Your task to perform on an android device: turn on improve location accuracy Image 0: 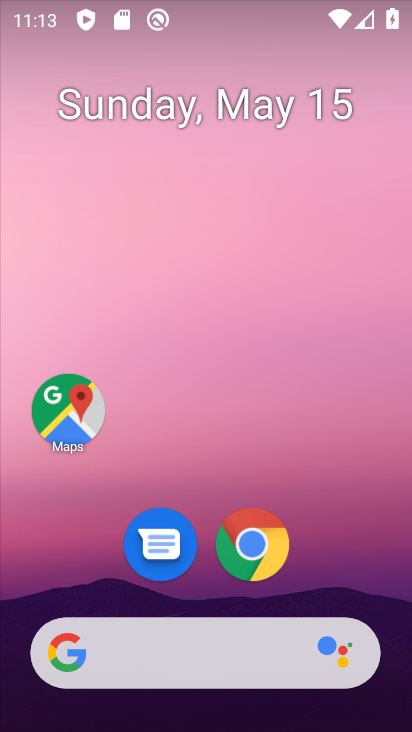
Step 0: drag from (335, 586) to (217, 110)
Your task to perform on an android device: turn on improve location accuracy Image 1: 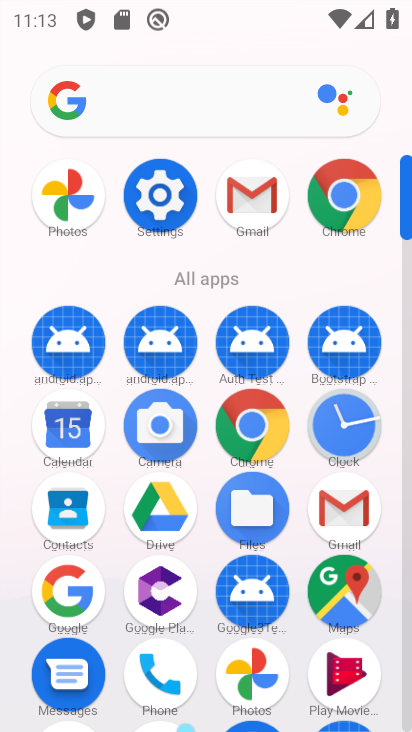
Step 1: click (163, 221)
Your task to perform on an android device: turn on improve location accuracy Image 2: 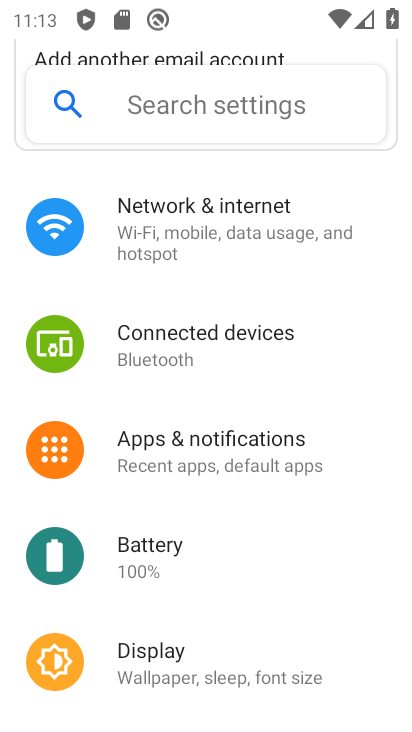
Step 2: drag from (304, 631) to (194, 142)
Your task to perform on an android device: turn on improve location accuracy Image 3: 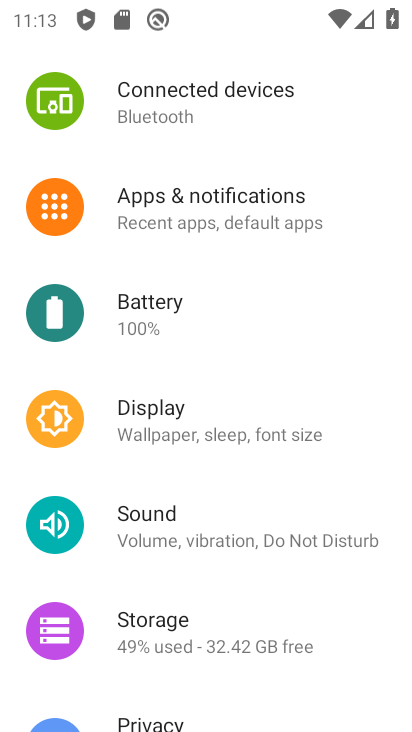
Step 3: click (285, 719)
Your task to perform on an android device: turn on improve location accuracy Image 4: 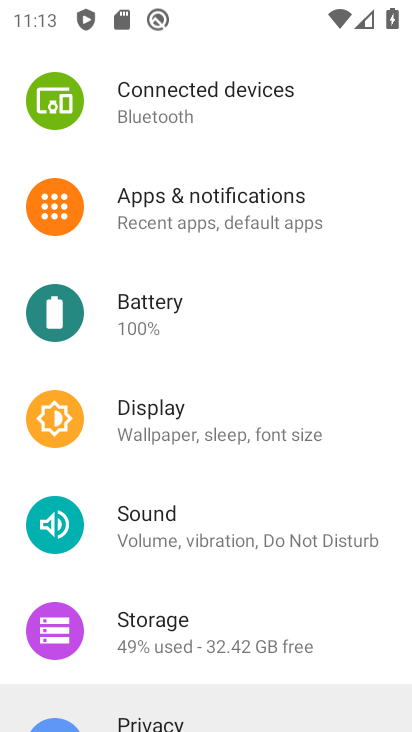
Step 4: click (285, 719)
Your task to perform on an android device: turn on improve location accuracy Image 5: 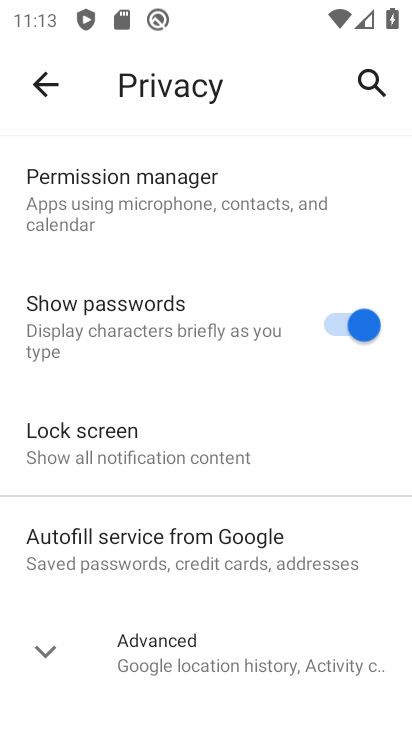
Step 5: drag from (289, 698) to (202, 341)
Your task to perform on an android device: turn on improve location accuracy Image 6: 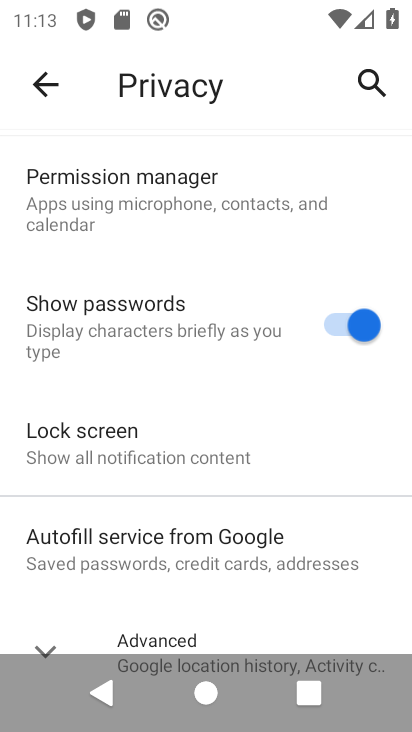
Step 6: click (55, 90)
Your task to perform on an android device: turn on improve location accuracy Image 7: 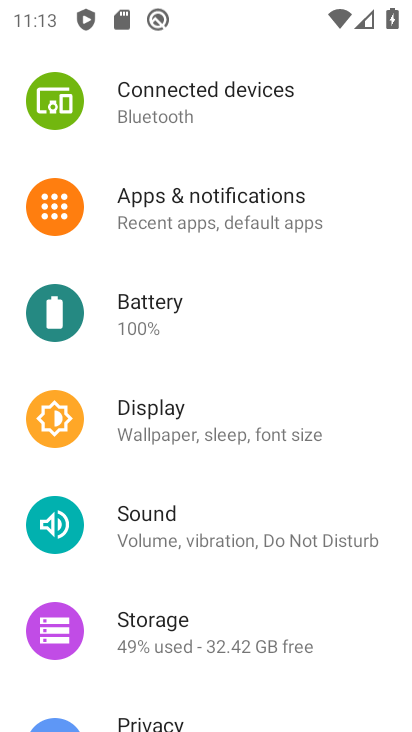
Step 7: drag from (370, 691) to (321, 225)
Your task to perform on an android device: turn on improve location accuracy Image 8: 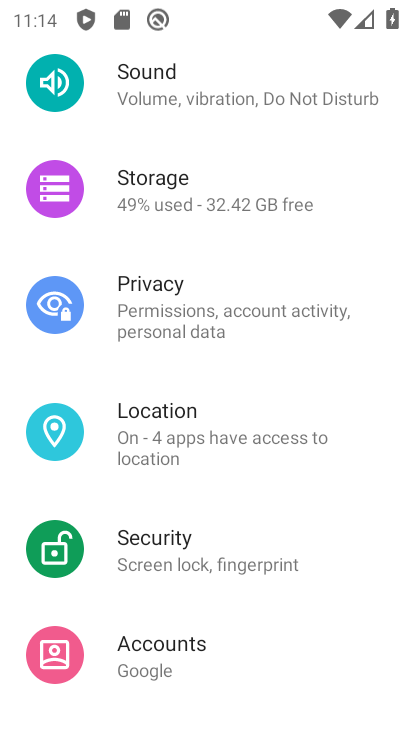
Step 8: click (288, 428)
Your task to perform on an android device: turn on improve location accuracy Image 9: 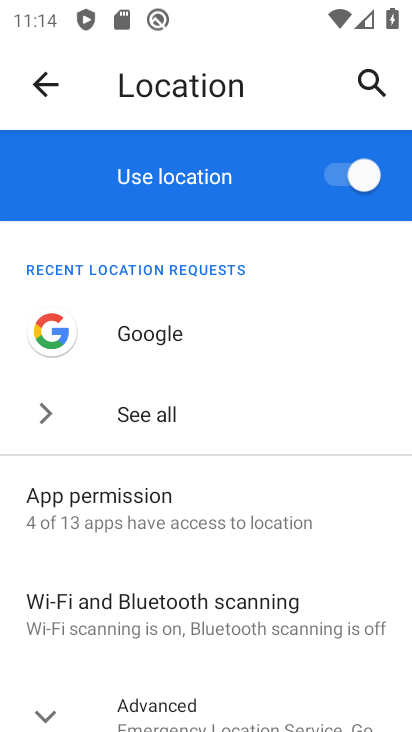
Step 9: drag from (295, 571) to (267, 305)
Your task to perform on an android device: turn on improve location accuracy Image 10: 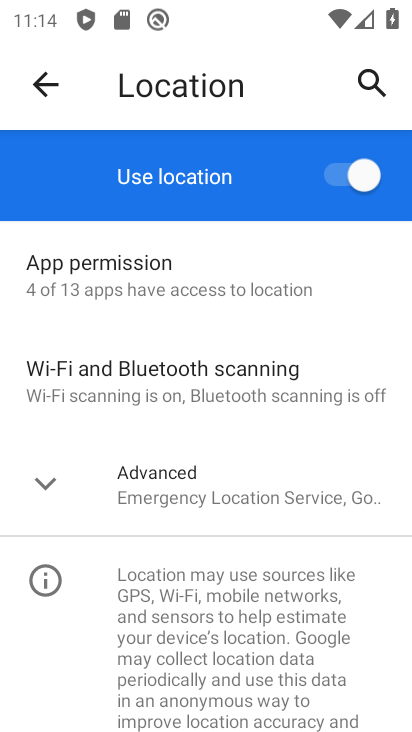
Step 10: click (275, 489)
Your task to perform on an android device: turn on improve location accuracy Image 11: 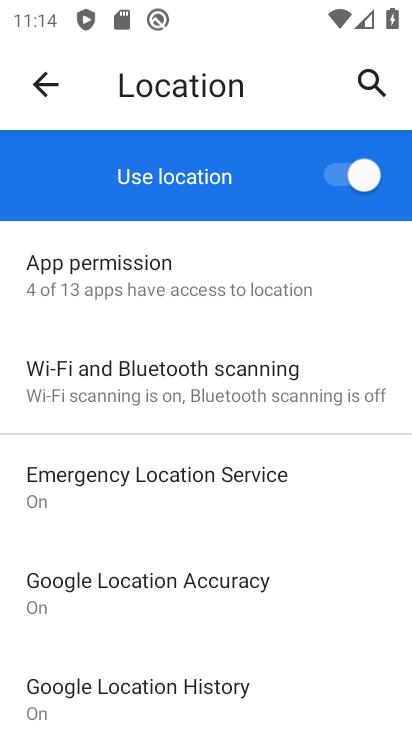
Step 11: click (292, 574)
Your task to perform on an android device: turn on improve location accuracy Image 12: 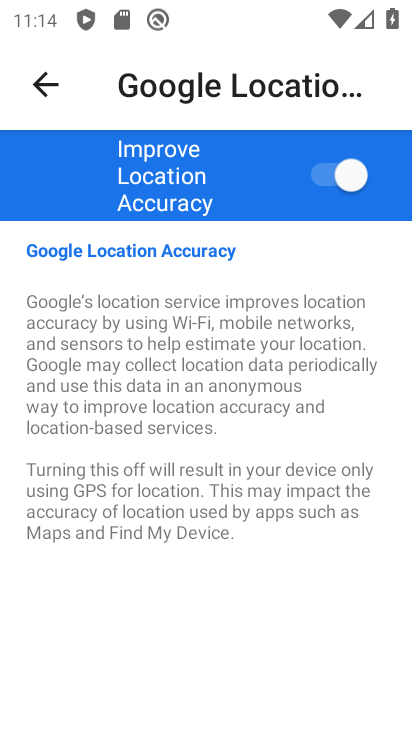
Step 12: task complete